Your task to perform on an android device: Turn on the flashlight Image 0: 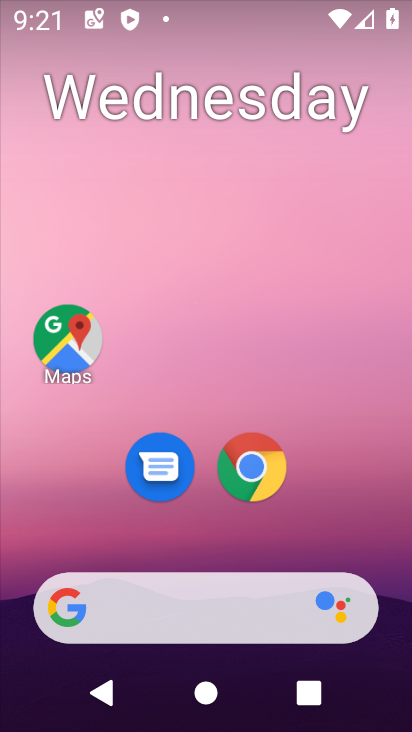
Step 0: drag from (252, 4) to (240, 601)
Your task to perform on an android device: Turn on the flashlight Image 1: 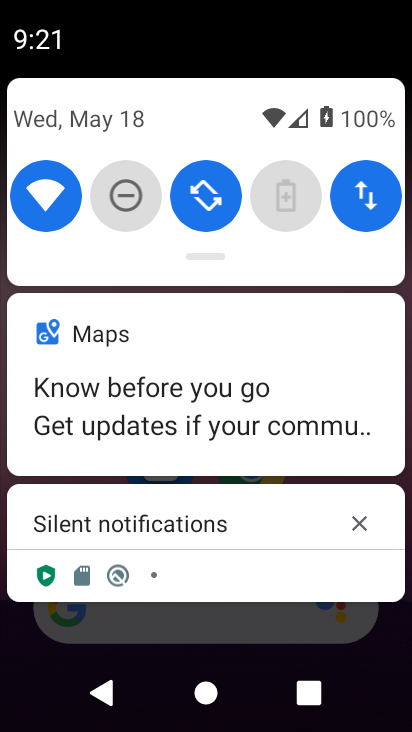
Step 1: task complete